Your task to perform on an android device: Go to Android settings Image 0: 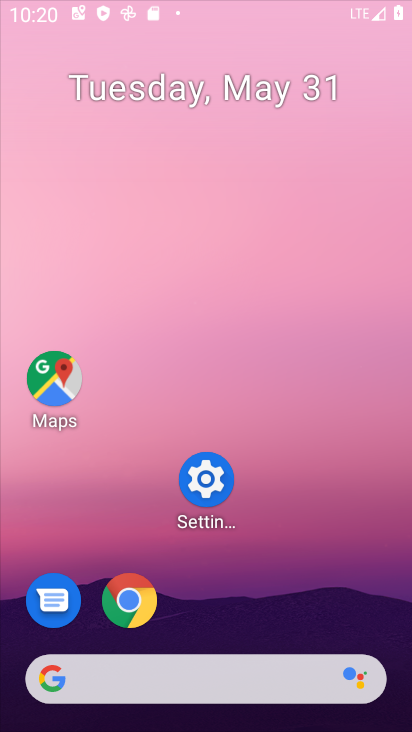
Step 0: press home button
Your task to perform on an android device: Go to Android settings Image 1: 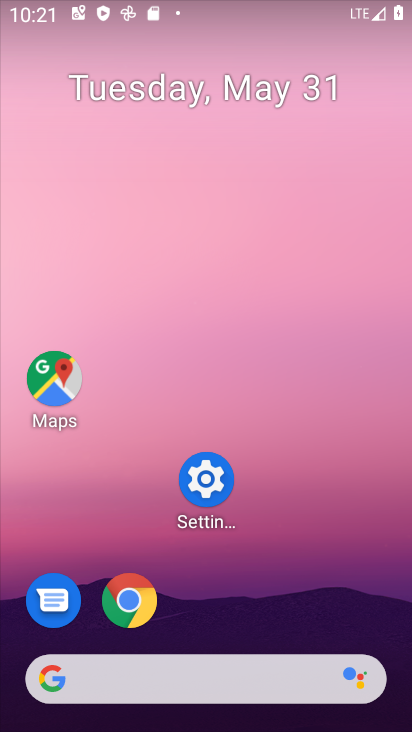
Step 1: click (211, 476)
Your task to perform on an android device: Go to Android settings Image 2: 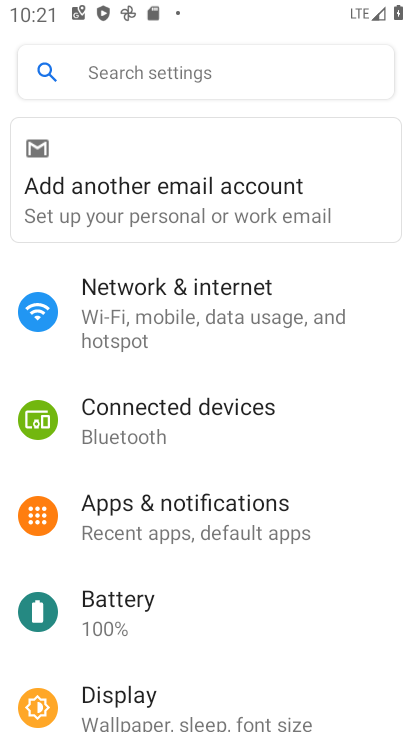
Step 2: click (134, 85)
Your task to perform on an android device: Go to Android settings Image 3: 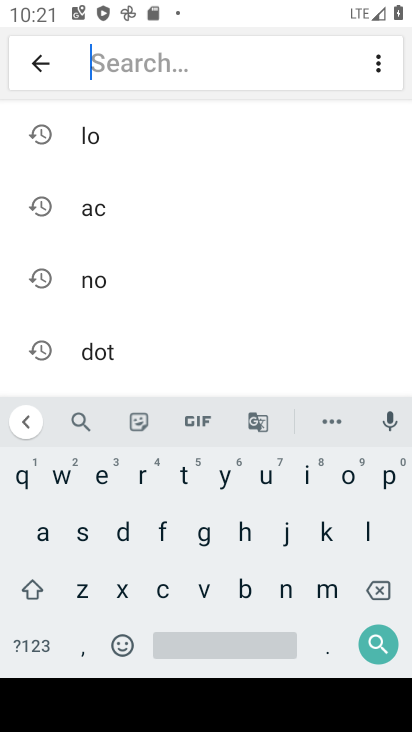
Step 3: click (40, 535)
Your task to perform on an android device: Go to Android settings Image 4: 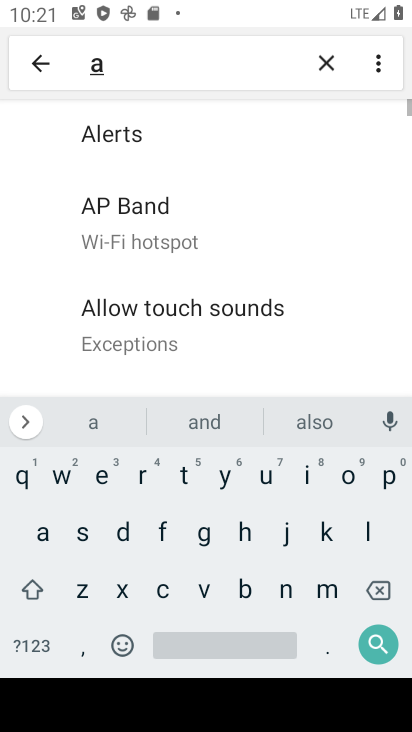
Step 4: click (282, 590)
Your task to perform on an android device: Go to Android settings Image 5: 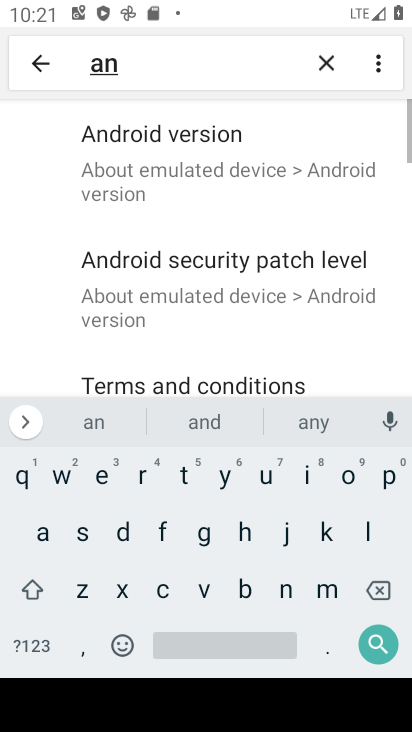
Step 5: click (151, 143)
Your task to perform on an android device: Go to Android settings Image 6: 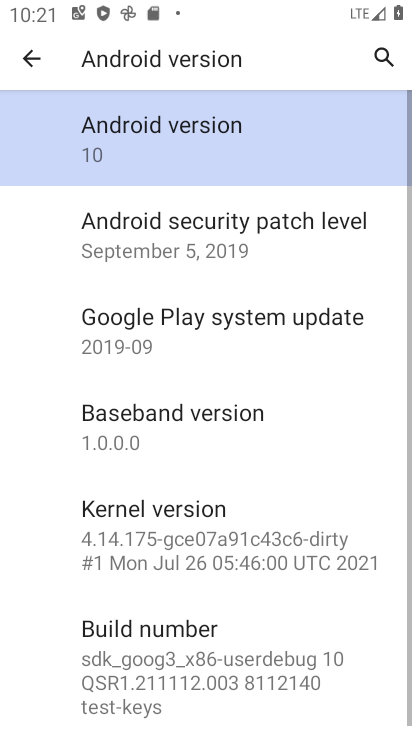
Step 6: task complete